Your task to perform on an android device: toggle translation in the chrome app Image 0: 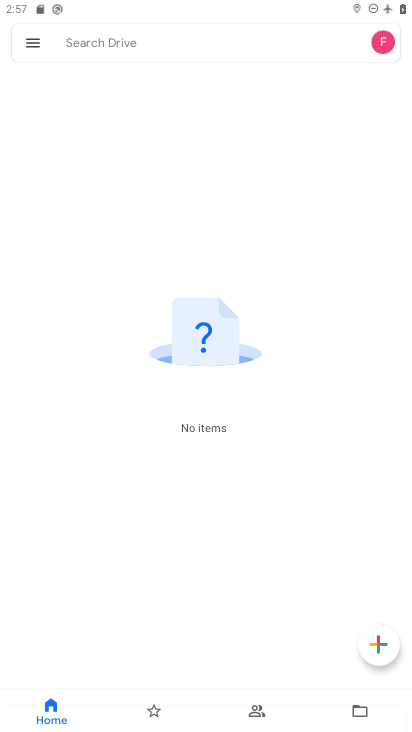
Step 0: press home button
Your task to perform on an android device: toggle translation in the chrome app Image 1: 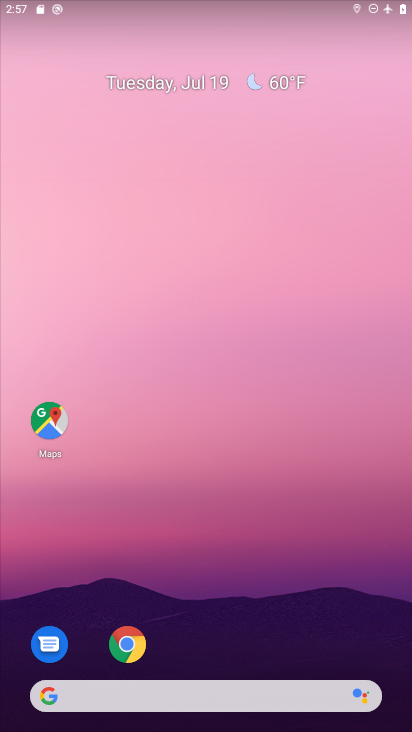
Step 1: click (143, 642)
Your task to perform on an android device: toggle translation in the chrome app Image 2: 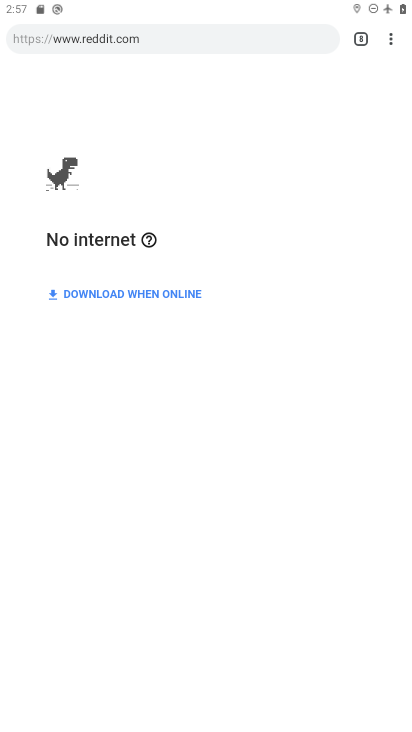
Step 2: drag from (391, 36) to (262, 430)
Your task to perform on an android device: toggle translation in the chrome app Image 3: 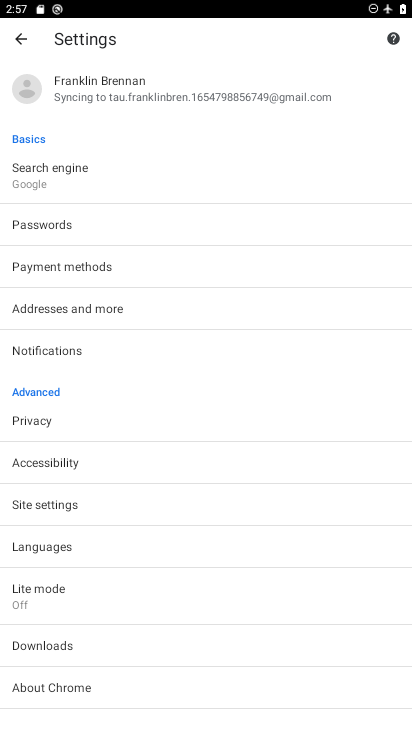
Step 3: click (82, 559)
Your task to perform on an android device: toggle translation in the chrome app Image 4: 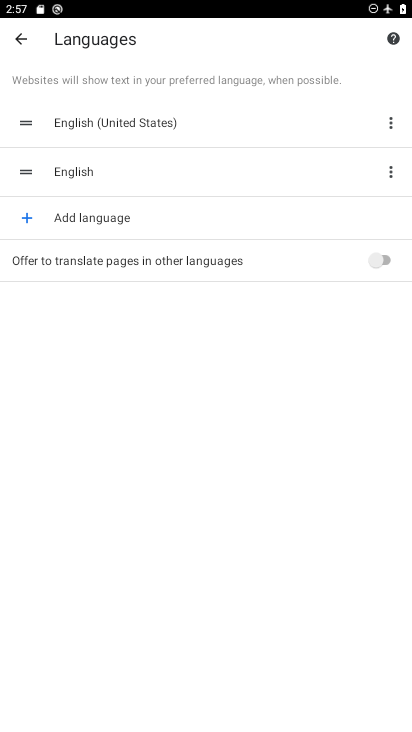
Step 4: click (377, 249)
Your task to perform on an android device: toggle translation in the chrome app Image 5: 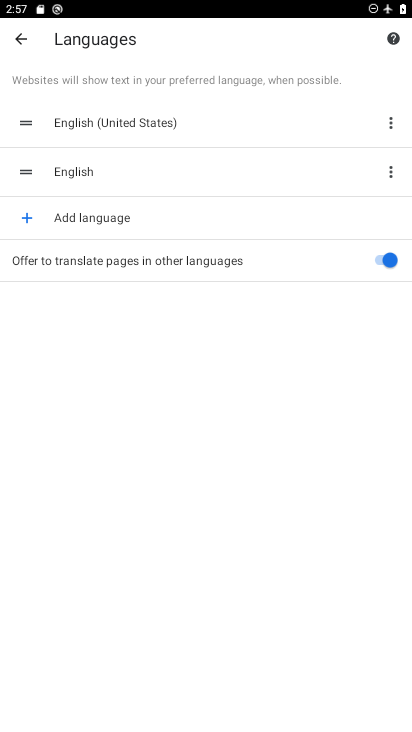
Step 5: task complete